Your task to perform on an android device: Open Google Chrome and open the bookmarks view Image 0: 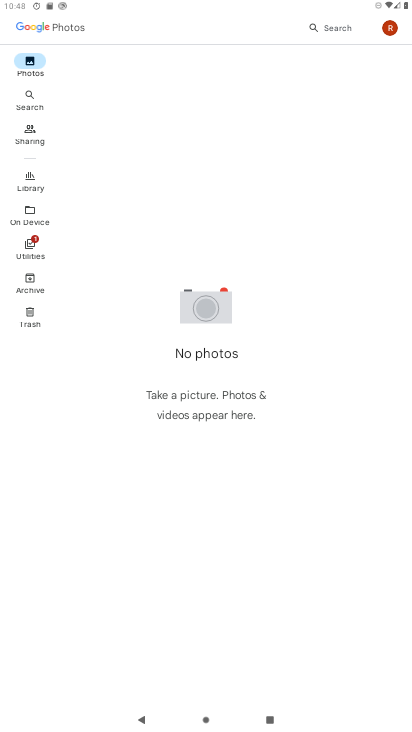
Step 0: press home button
Your task to perform on an android device: Open Google Chrome and open the bookmarks view Image 1: 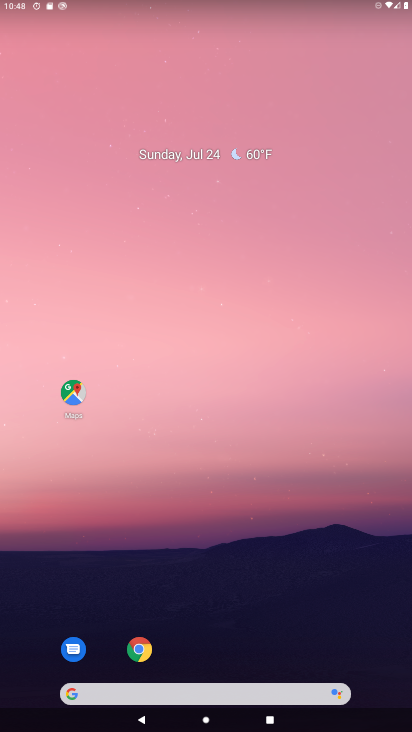
Step 1: drag from (238, 629) to (247, 117)
Your task to perform on an android device: Open Google Chrome and open the bookmarks view Image 2: 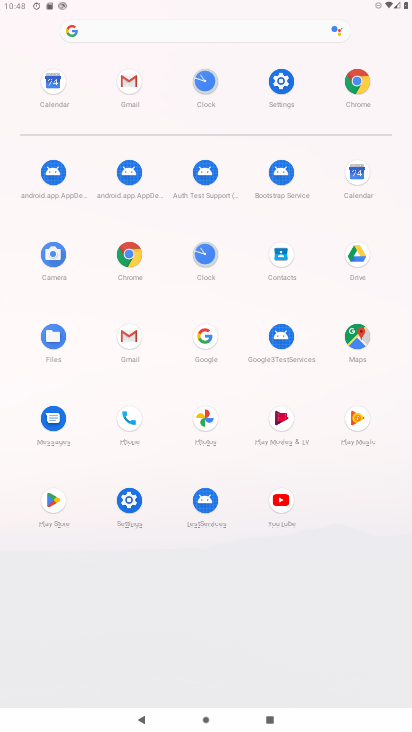
Step 2: click (133, 249)
Your task to perform on an android device: Open Google Chrome and open the bookmarks view Image 3: 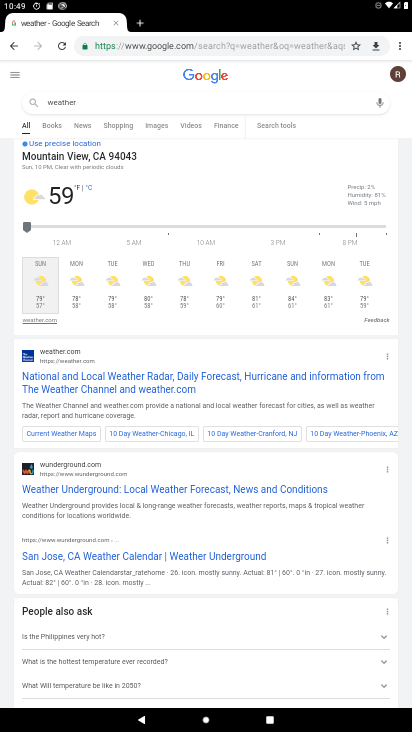
Step 3: press home button
Your task to perform on an android device: Open Google Chrome and open the bookmarks view Image 4: 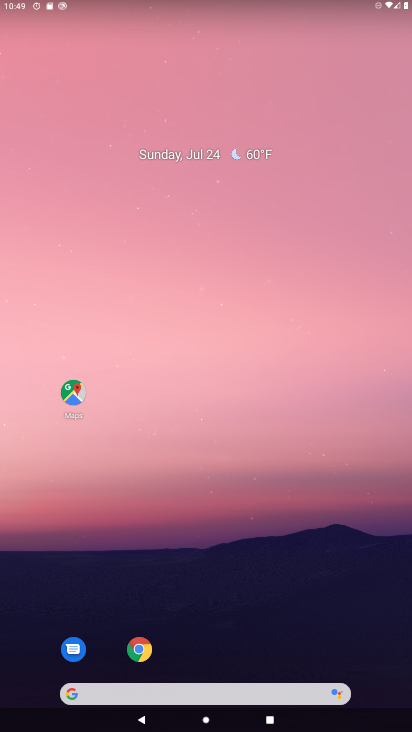
Step 4: drag from (319, 642) to (259, 107)
Your task to perform on an android device: Open Google Chrome and open the bookmarks view Image 5: 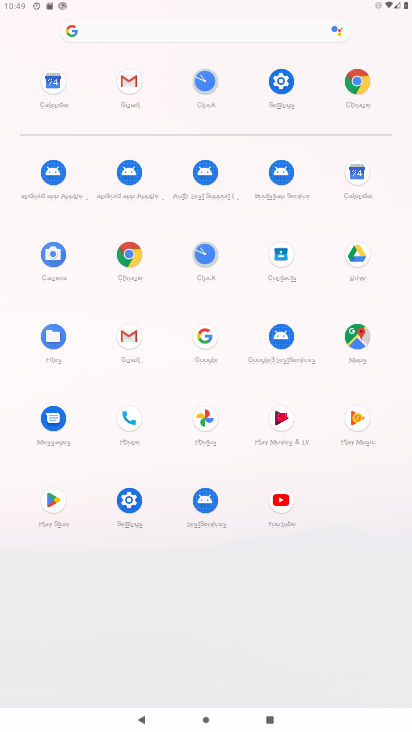
Step 5: click (361, 80)
Your task to perform on an android device: Open Google Chrome and open the bookmarks view Image 6: 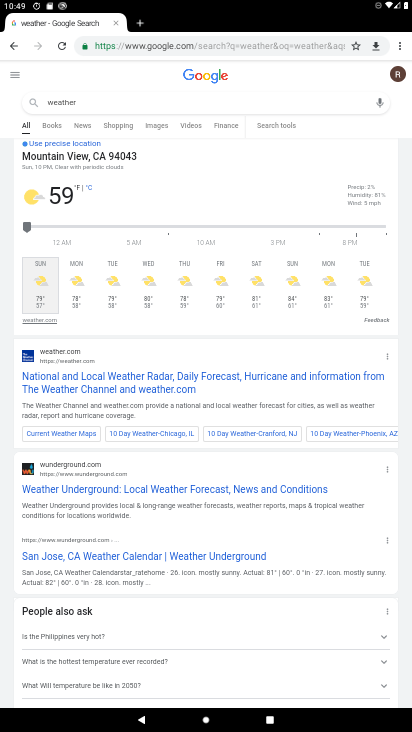
Step 6: task complete